Your task to perform on an android device: check out phone information Image 0: 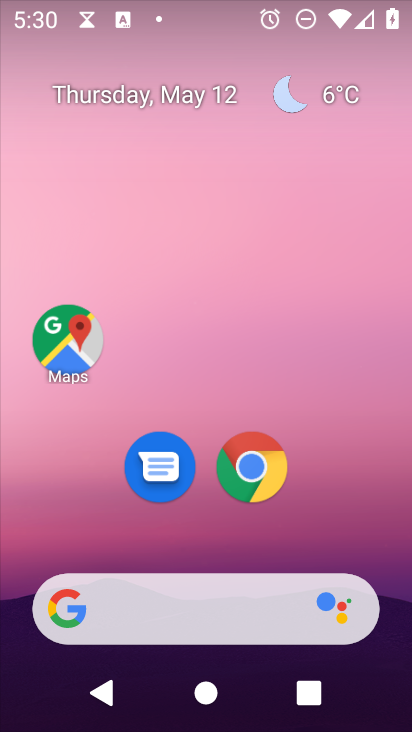
Step 0: drag from (344, 519) to (304, 8)
Your task to perform on an android device: check out phone information Image 1: 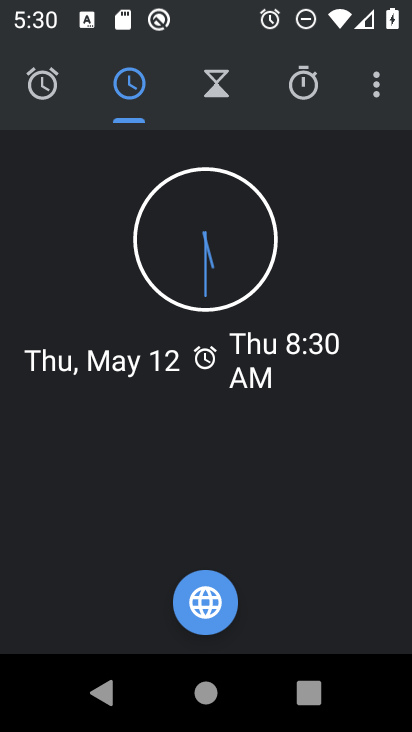
Step 1: press home button
Your task to perform on an android device: check out phone information Image 2: 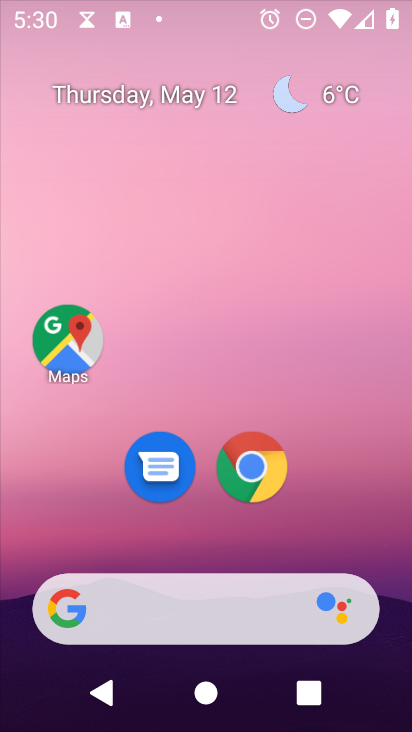
Step 2: drag from (196, 622) to (212, 59)
Your task to perform on an android device: check out phone information Image 3: 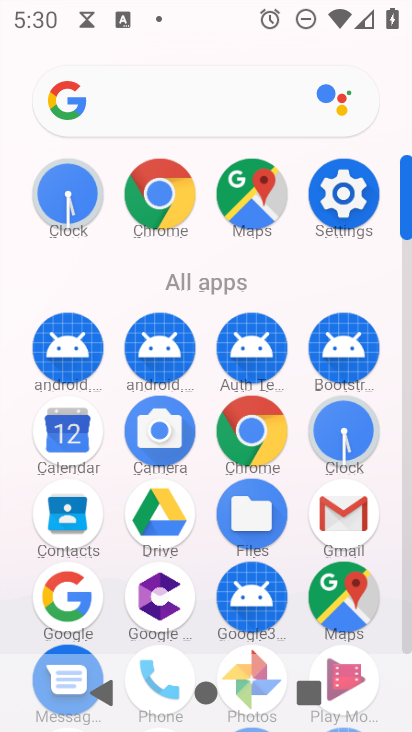
Step 3: click (338, 201)
Your task to perform on an android device: check out phone information Image 4: 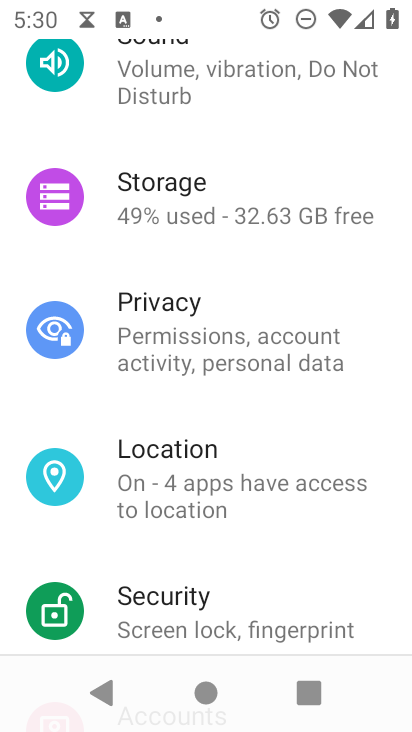
Step 4: drag from (278, 635) to (257, 54)
Your task to perform on an android device: check out phone information Image 5: 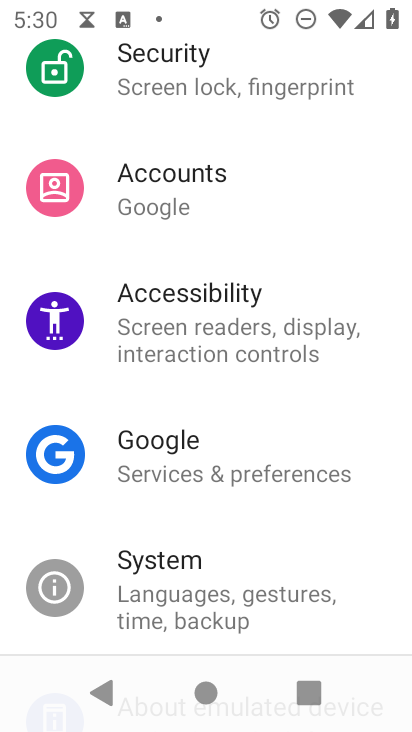
Step 5: drag from (240, 627) to (201, 188)
Your task to perform on an android device: check out phone information Image 6: 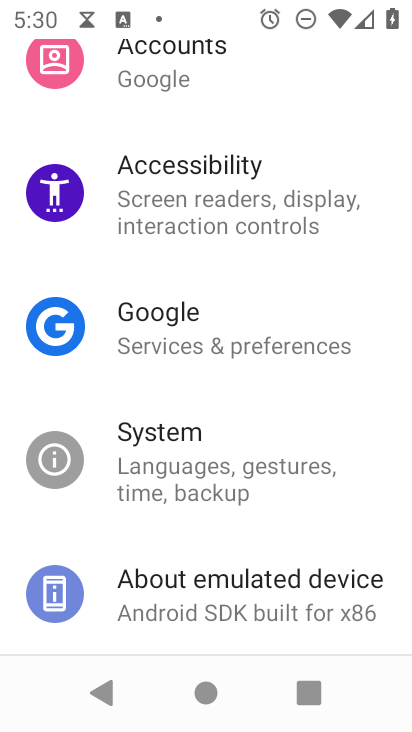
Step 6: click (253, 608)
Your task to perform on an android device: check out phone information Image 7: 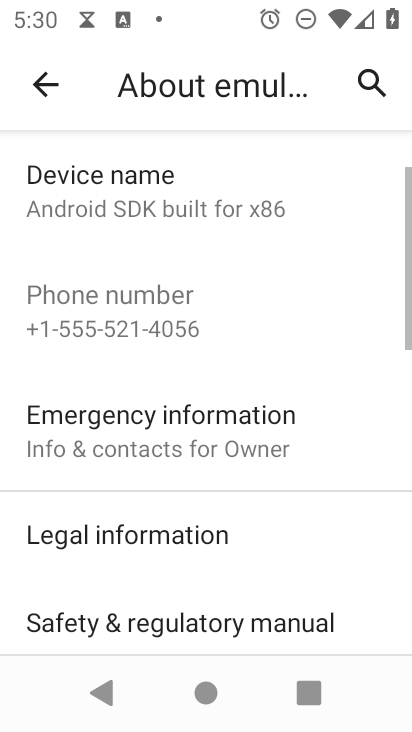
Step 7: task complete